Your task to perform on an android device: Open wifi settings Image 0: 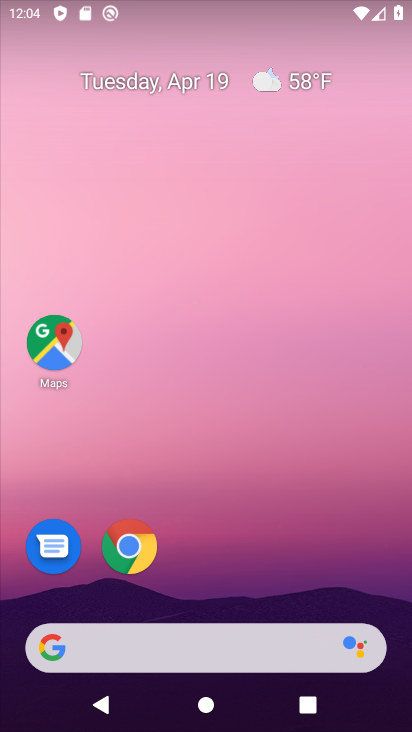
Step 0: drag from (194, 615) to (209, 0)
Your task to perform on an android device: Open wifi settings Image 1: 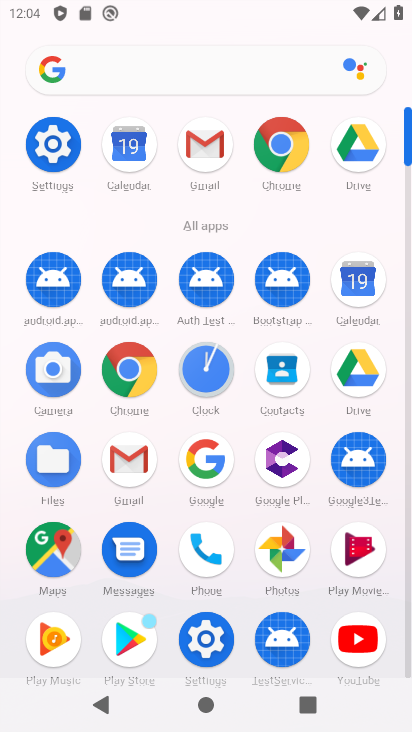
Step 1: click (55, 129)
Your task to perform on an android device: Open wifi settings Image 2: 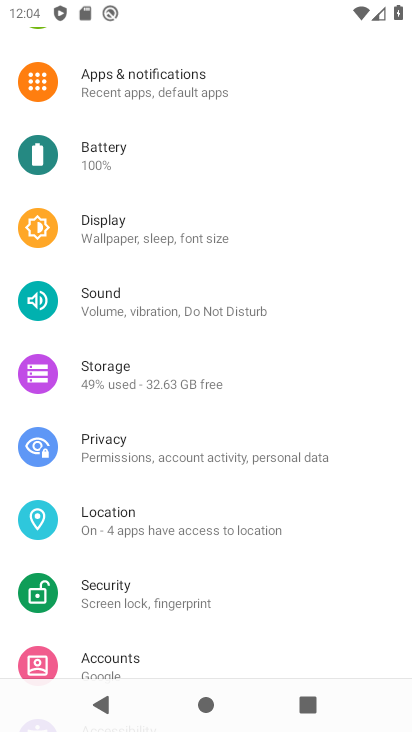
Step 2: drag from (164, 95) to (189, 514)
Your task to perform on an android device: Open wifi settings Image 3: 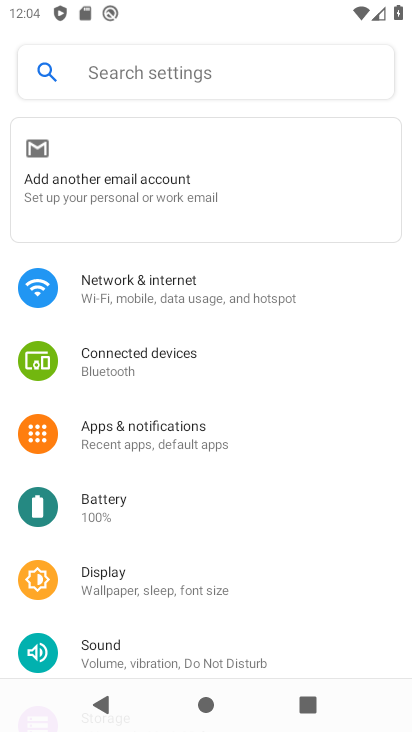
Step 3: click (172, 288)
Your task to perform on an android device: Open wifi settings Image 4: 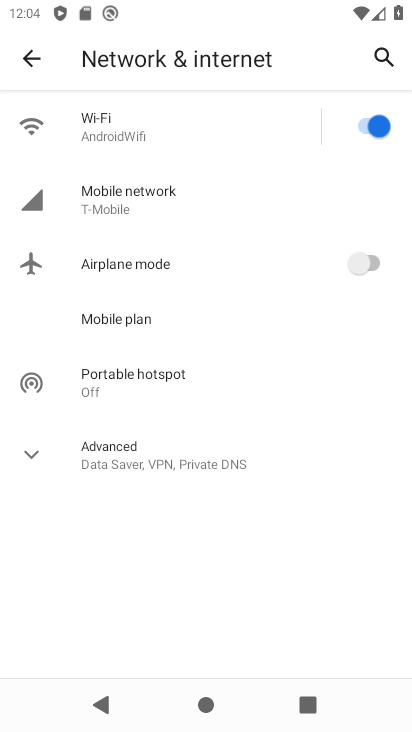
Step 4: click (154, 123)
Your task to perform on an android device: Open wifi settings Image 5: 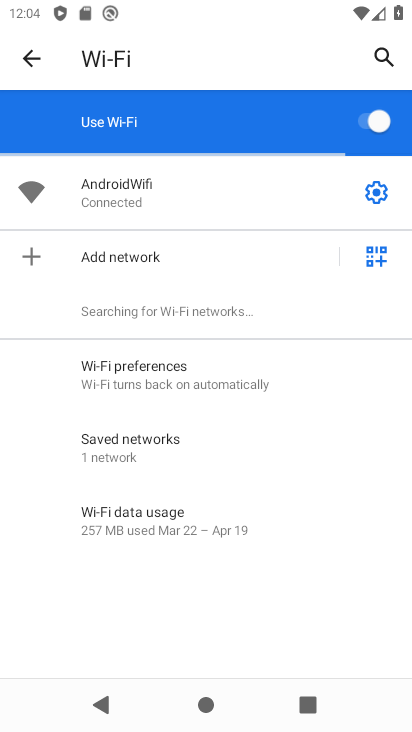
Step 5: task complete